Your task to perform on an android device: clear all cookies in the chrome app Image 0: 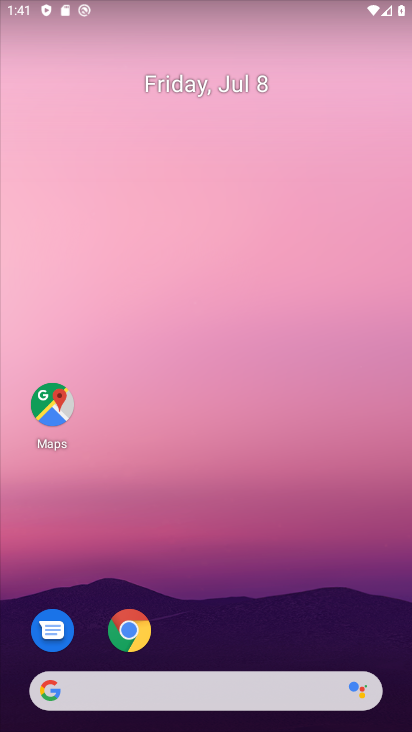
Step 0: drag from (250, 645) to (246, 137)
Your task to perform on an android device: clear all cookies in the chrome app Image 1: 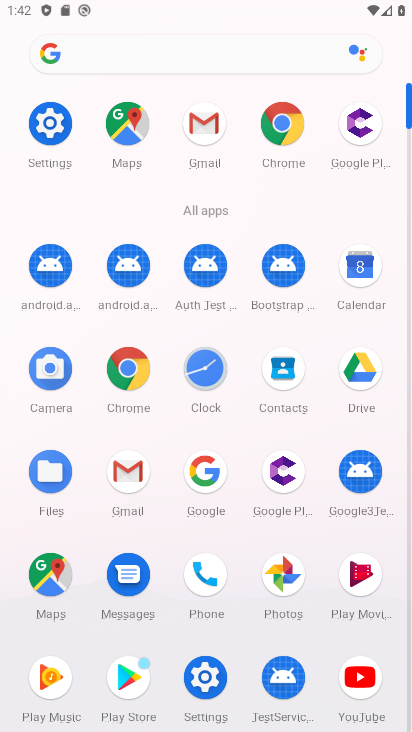
Step 1: click (126, 376)
Your task to perform on an android device: clear all cookies in the chrome app Image 2: 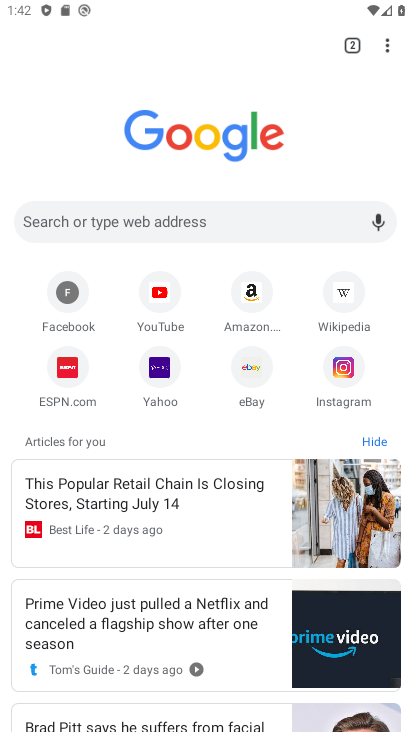
Step 2: click (391, 42)
Your task to perform on an android device: clear all cookies in the chrome app Image 3: 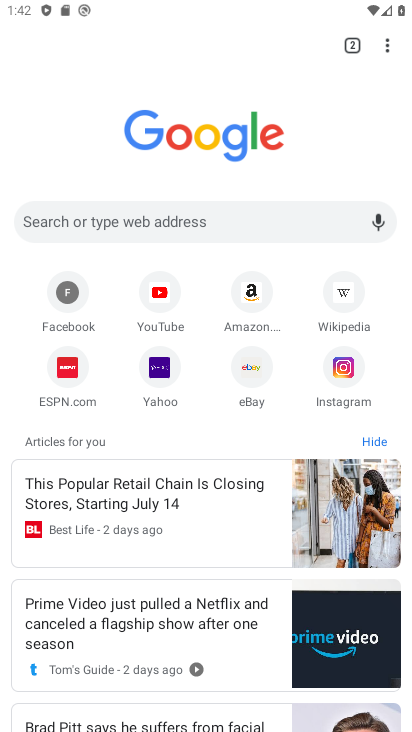
Step 3: click (391, 46)
Your task to perform on an android device: clear all cookies in the chrome app Image 4: 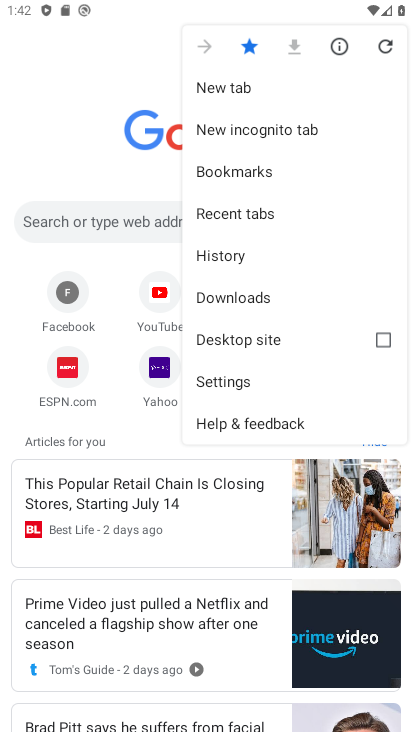
Step 4: click (256, 244)
Your task to perform on an android device: clear all cookies in the chrome app Image 5: 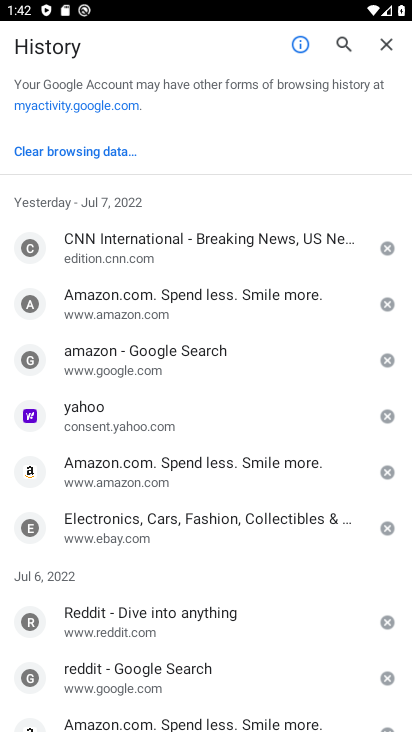
Step 5: click (81, 152)
Your task to perform on an android device: clear all cookies in the chrome app Image 6: 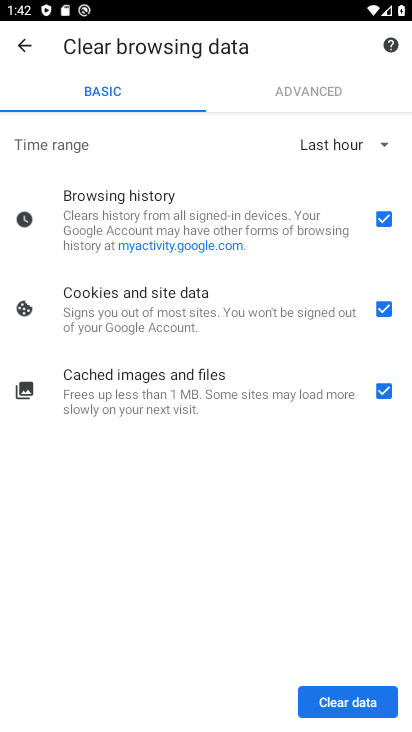
Step 6: click (384, 212)
Your task to perform on an android device: clear all cookies in the chrome app Image 7: 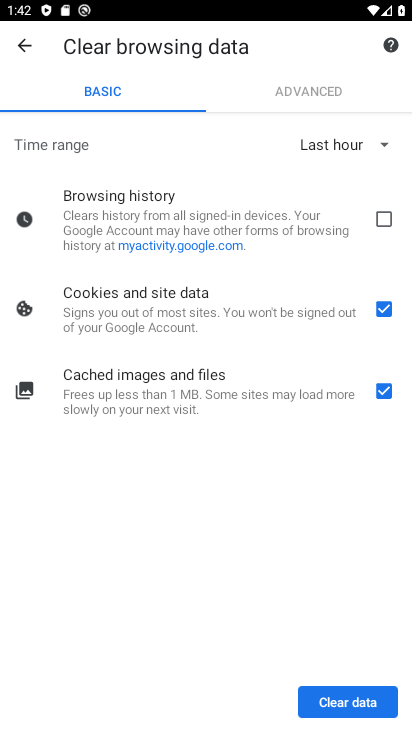
Step 7: click (370, 385)
Your task to perform on an android device: clear all cookies in the chrome app Image 8: 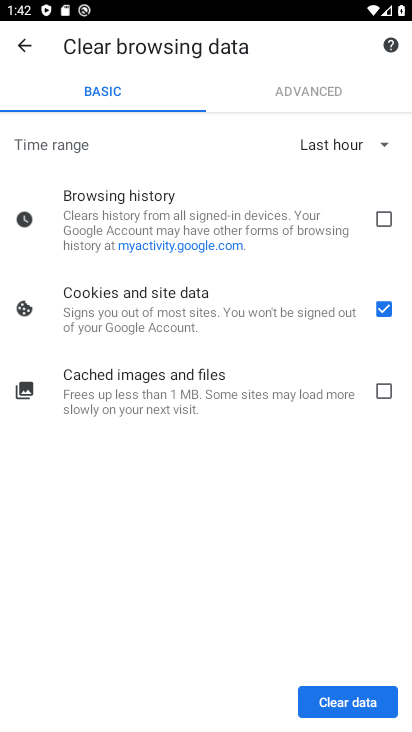
Step 8: click (365, 141)
Your task to perform on an android device: clear all cookies in the chrome app Image 9: 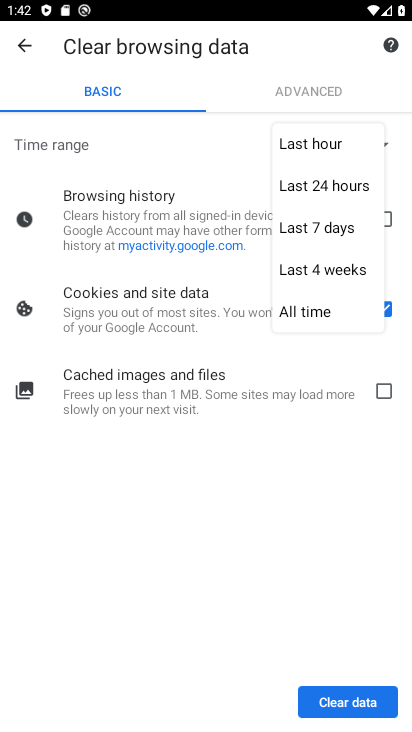
Step 9: click (349, 308)
Your task to perform on an android device: clear all cookies in the chrome app Image 10: 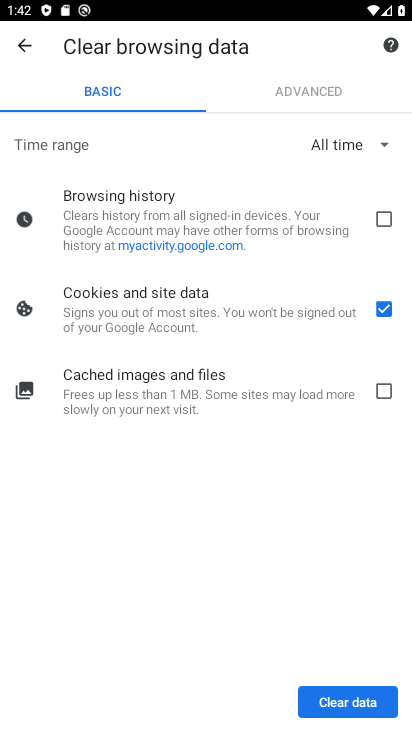
Step 10: click (385, 696)
Your task to perform on an android device: clear all cookies in the chrome app Image 11: 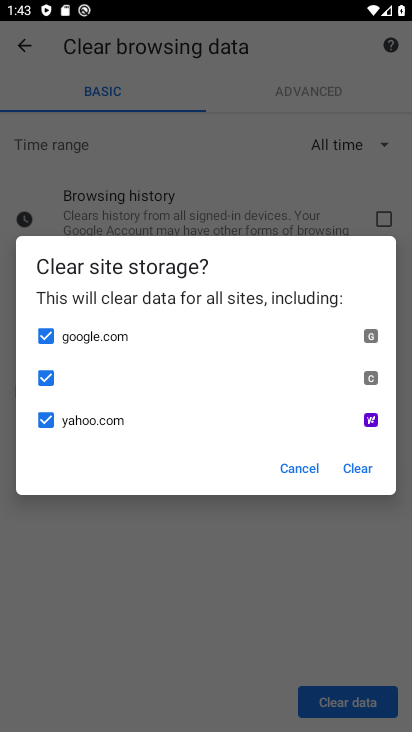
Step 11: click (361, 462)
Your task to perform on an android device: clear all cookies in the chrome app Image 12: 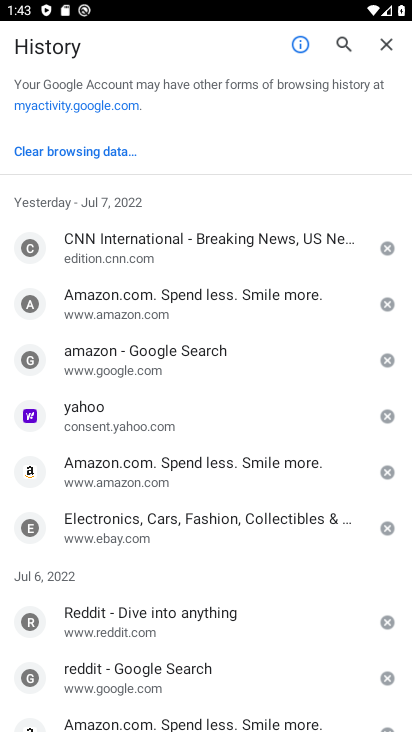
Step 12: task complete